Your task to perform on an android device: Go to sound settings Image 0: 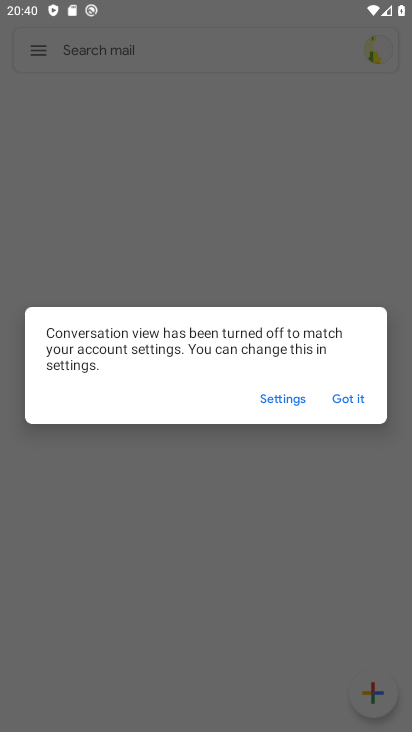
Step 0: press home button
Your task to perform on an android device: Go to sound settings Image 1: 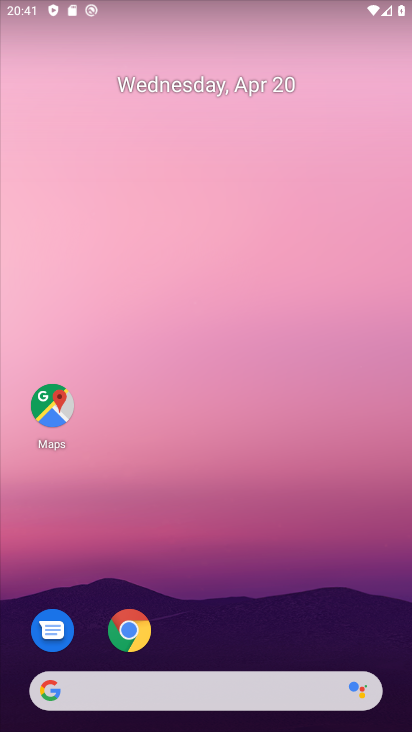
Step 1: drag from (185, 627) to (208, 175)
Your task to perform on an android device: Go to sound settings Image 2: 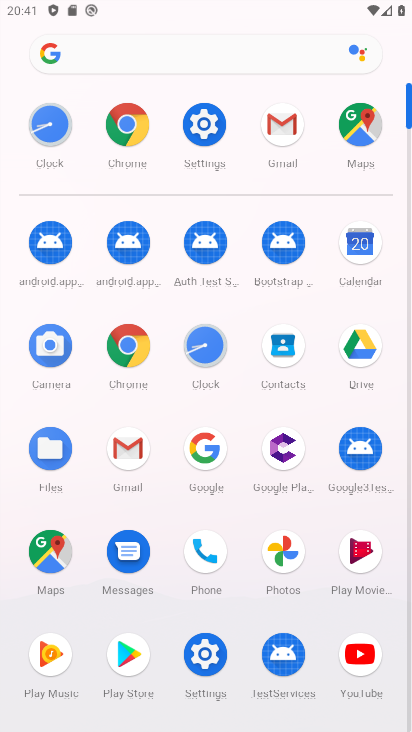
Step 2: click (196, 139)
Your task to perform on an android device: Go to sound settings Image 3: 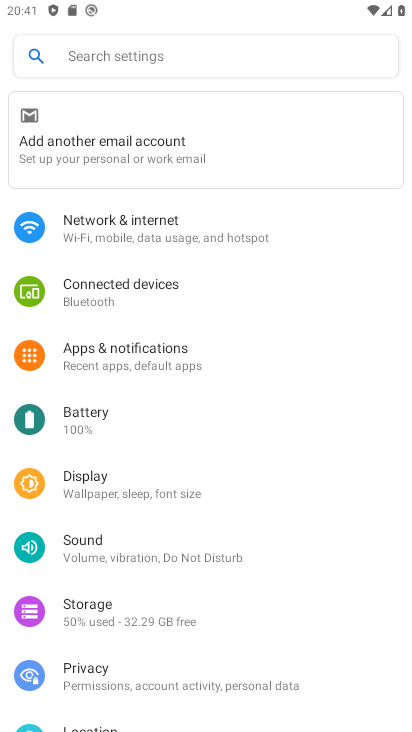
Step 3: click (118, 557)
Your task to perform on an android device: Go to sound settings Image 4: 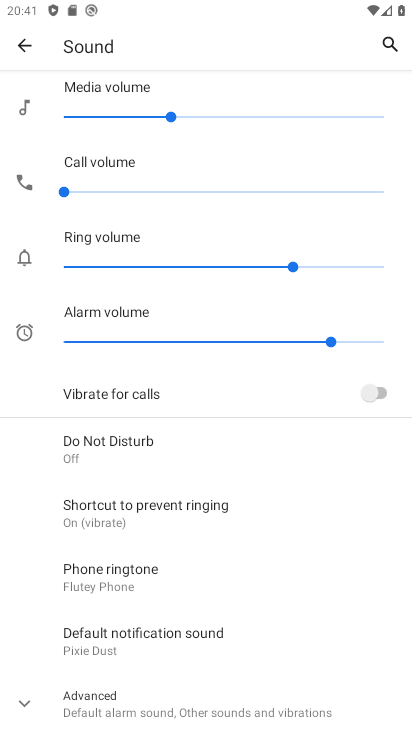
Step 4: task complete